Your task to perform on an android device: check storage Image 0: 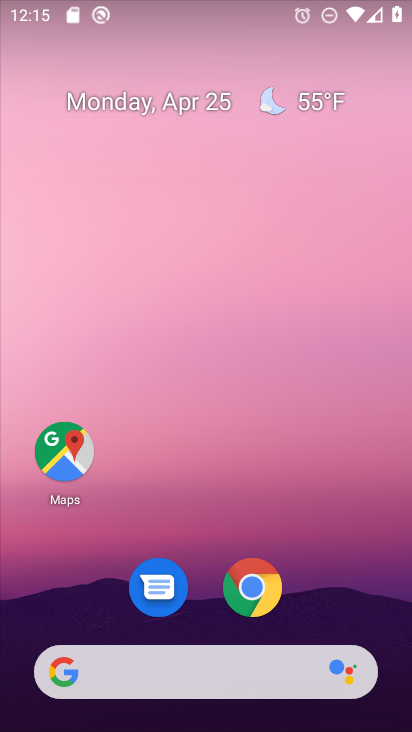
Step 0: drag from (335, 548) to (306, 99)
Your task to perform on an android device: check storage Image 1: 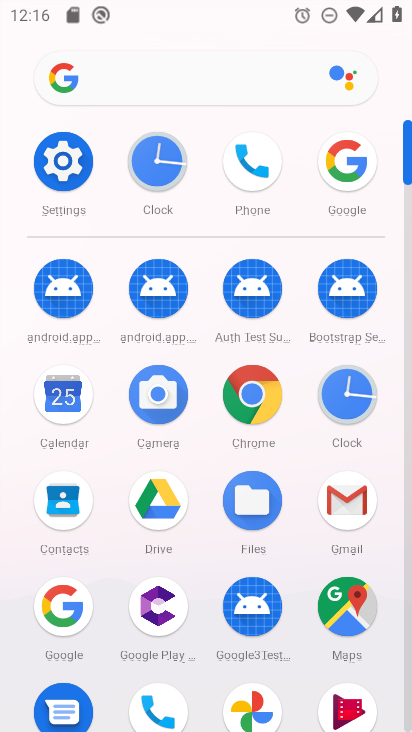
Step 1: click (54, 159)
Your task to perform on an android device: check storage Image 2: 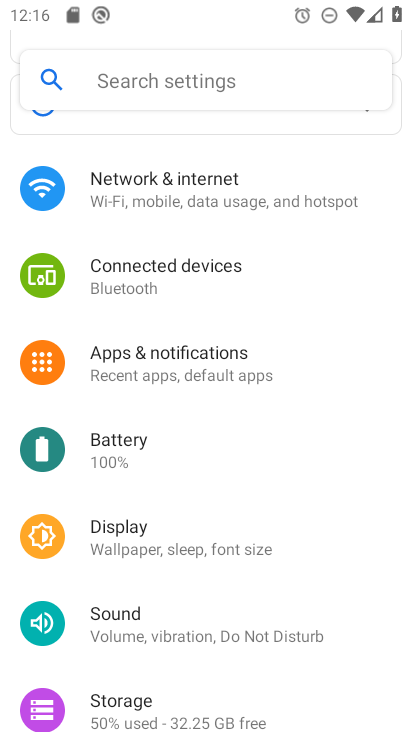
Step 2: drag from (224, 474) to (273, 189)
Your task to perform on an android device: check storage Image 3: 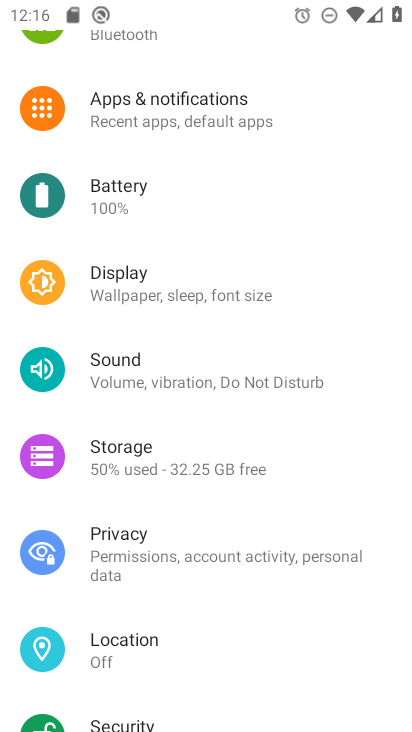
Step 3: click (154, 461)
Your task to perform on an android device: check storage Image 4: 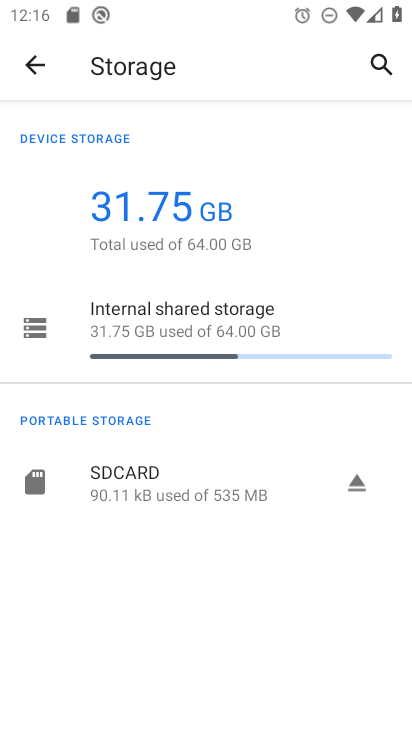
Step 4: task complete